Your task to perform on an android device: Go to Android settings Image 0: 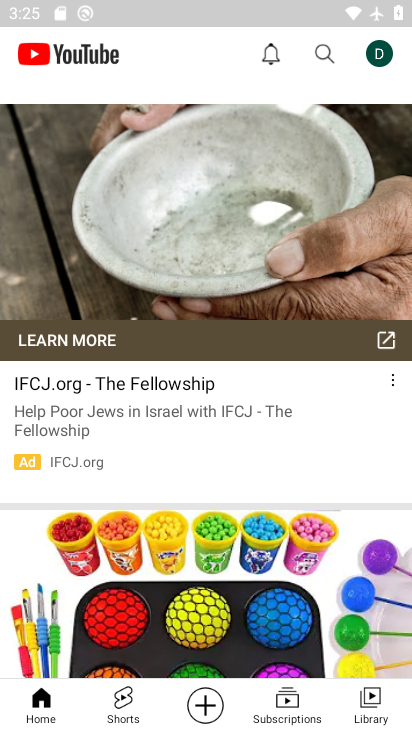
Step 0: press home button
Your task to perform on an android device: Go to Android settings Image 1: 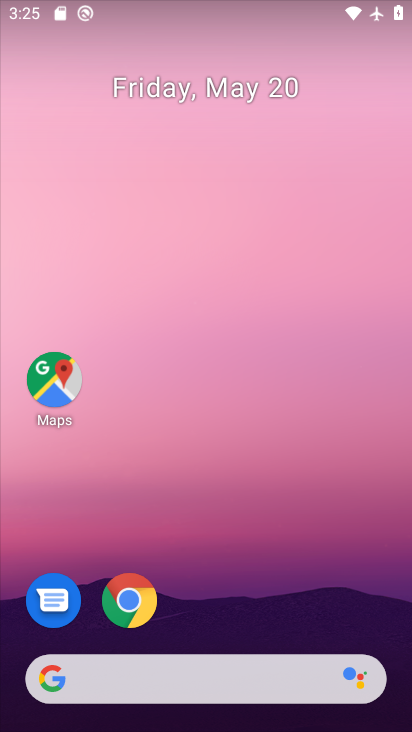
Step 1: drag from (235, 442) to (128, 38)
Your task to perform on an android device: Go to Android settings Image 2: 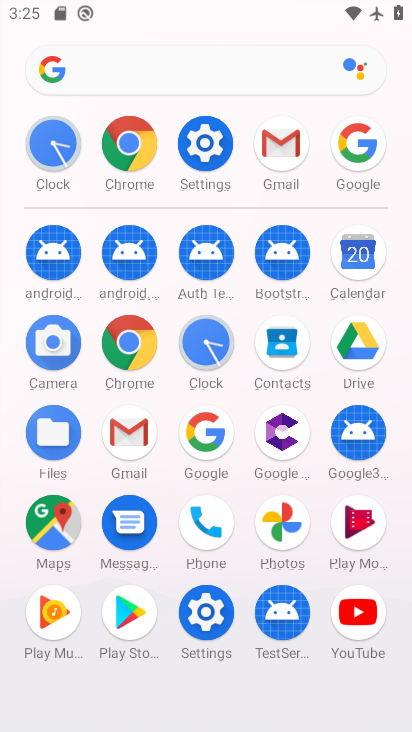
Step 2: click (237, 152)
Your task to perform on an android device: Go to Android settings Image 3: 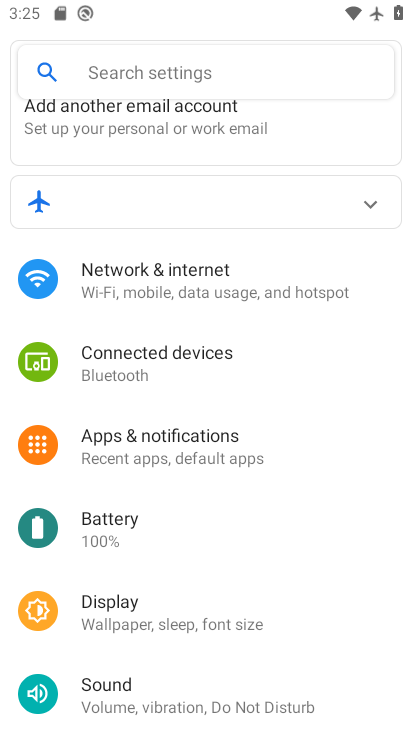
Step 3: drag from (227, 535) to (208, 256)
Your task to perform on an android device: Go to Android settings Image 4: 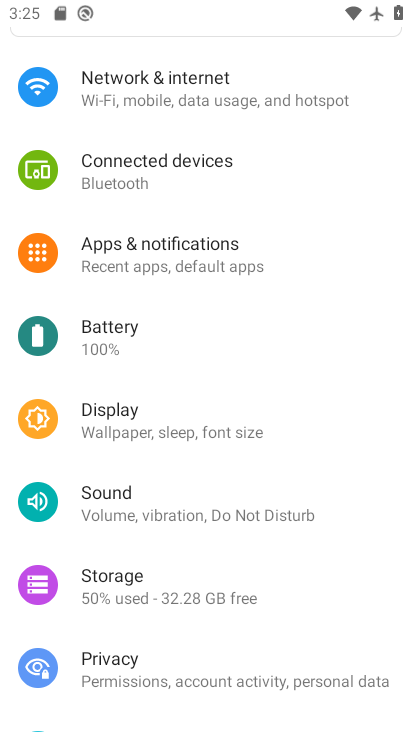
Step 4: drag from (241, 598) to (207, 137)
Your task to perform on an android device: Go to Android settings Image 5: 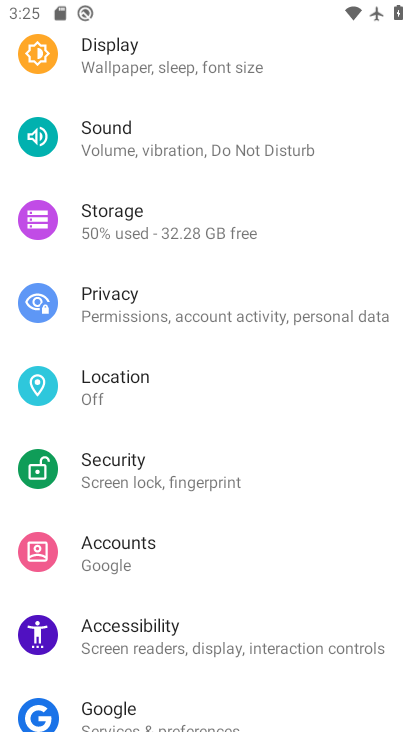
Step 5: drag from (191, 610) to (167, 192)
Your task to perform on an android device: Go to Android settings Image 6: 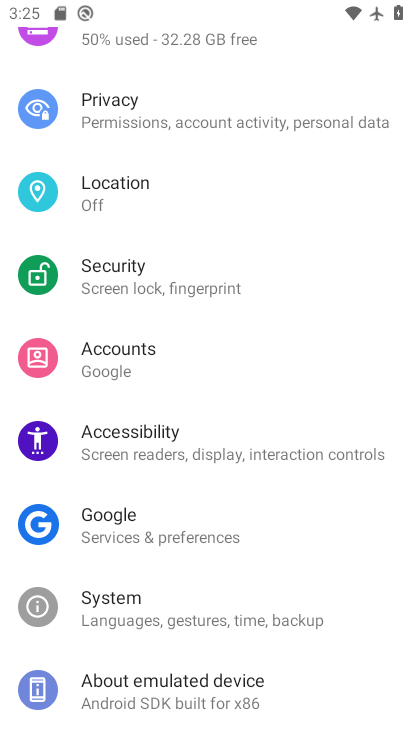
Step 6: click (202, 690)
Your task to perform on an android device: Go to Android settings Image 7: 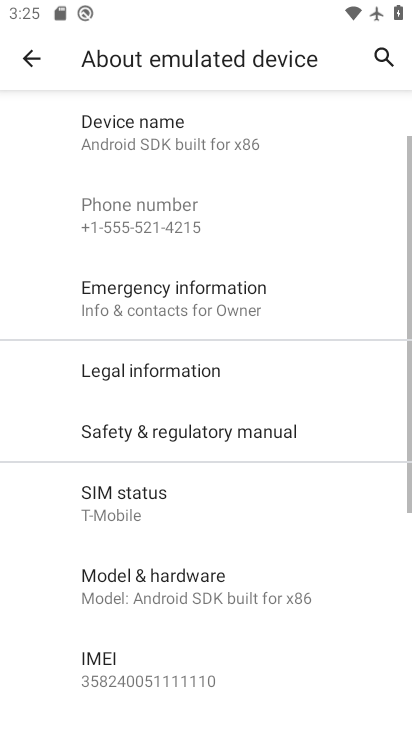
Step 7: drag from (202, 543) to (190, 159)
Your task to perform on an android device: Go to Android settings Image 8: 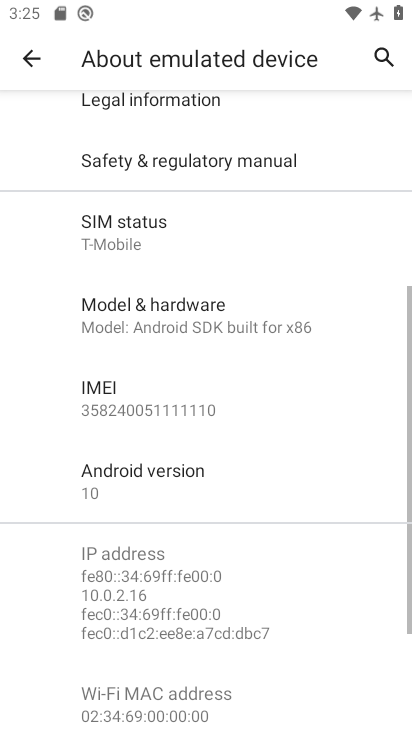
Step 8: click (173, 472)
Your task to perform on an android device: Go to Android settings Image 9: 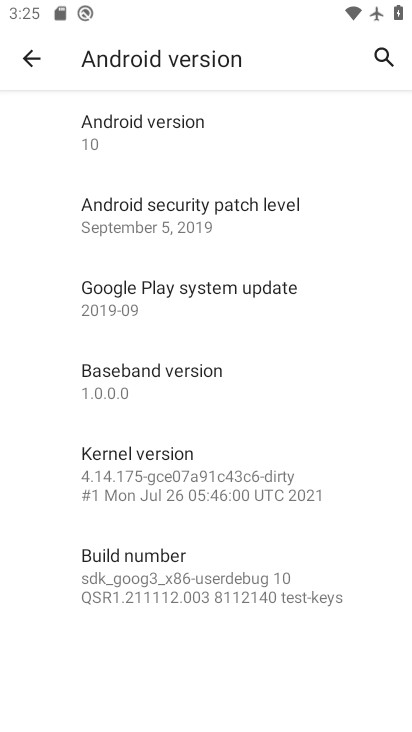
Step 9: task complete